Your task to perform on an android device: Open calendar and show me the second week of next month Image 0: 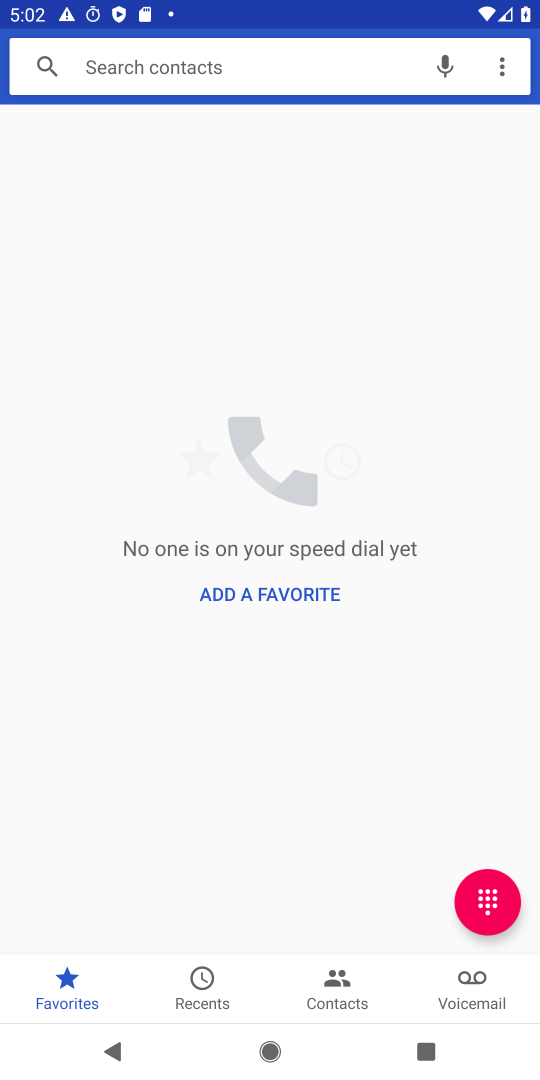
Step 0: press home button
Your task to perform on an android device: Open calendar and show me the second week of next month Image 1: 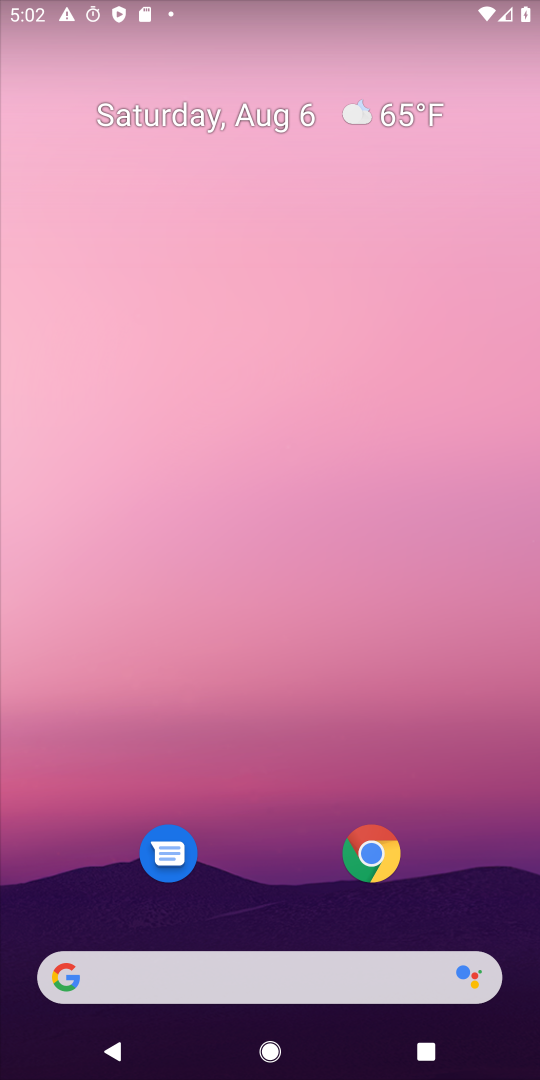
Step 1: drag from (244, 857) to (265, 55)
Your task to perform on an android device: Open calendar and show me the second week of next month Image 2: 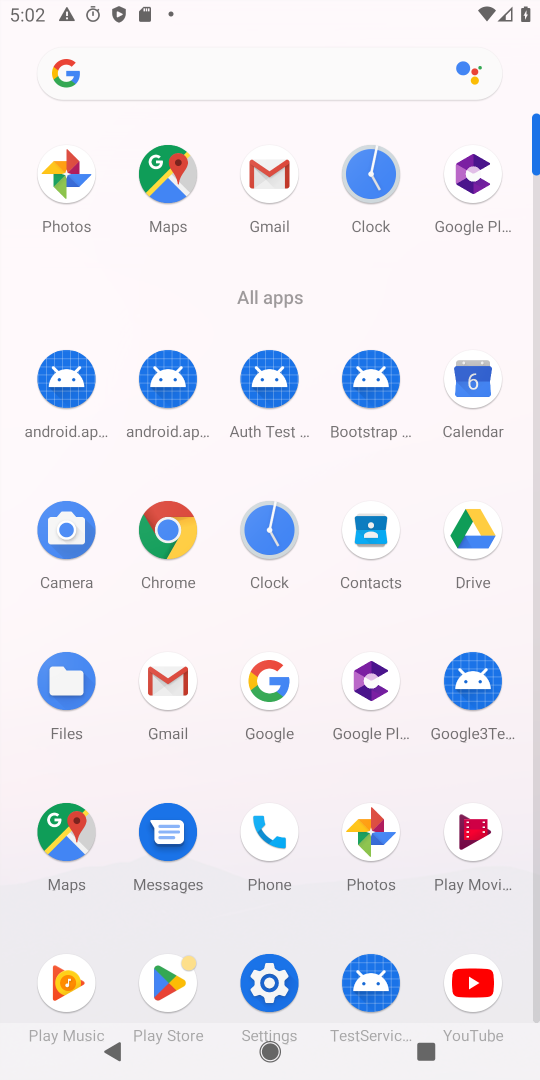
Step 2: click (464, 373)
Your task to perform on an android device: Open calendar and show me the second week of next month Image 3: 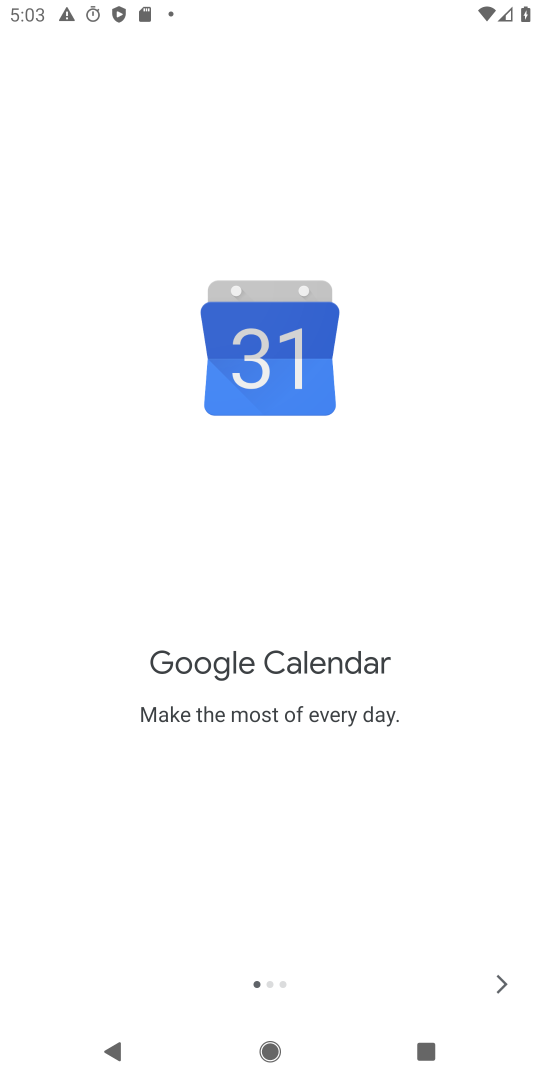
Step 3: click (491, 997)
Your task to perform on an android device: Open calendar and show me the second week of next month Image 4: 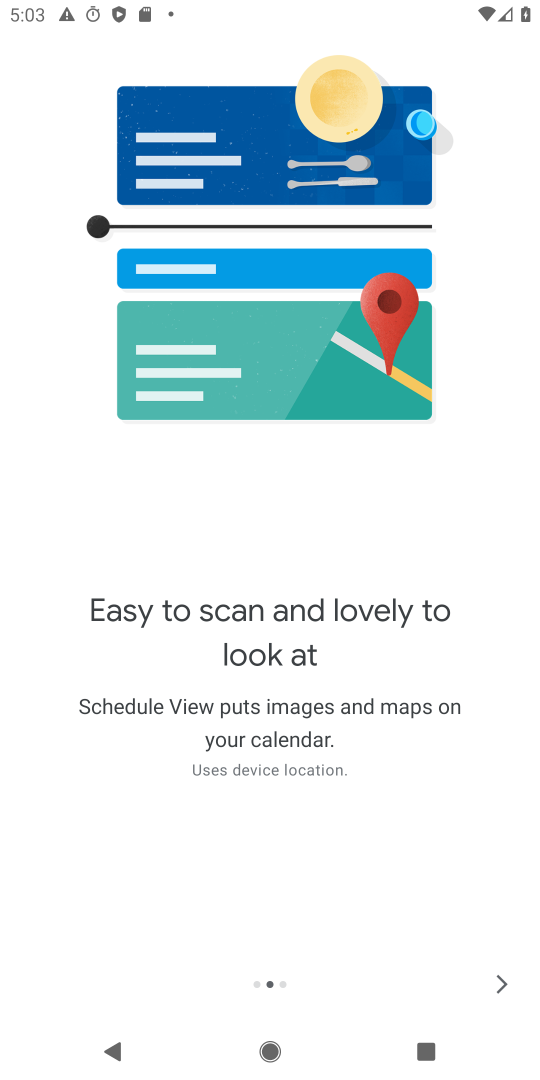
Step 4: click (484, 998)
Your task to perform on an android device: Open calendar and show me the second week of next month Image 5: 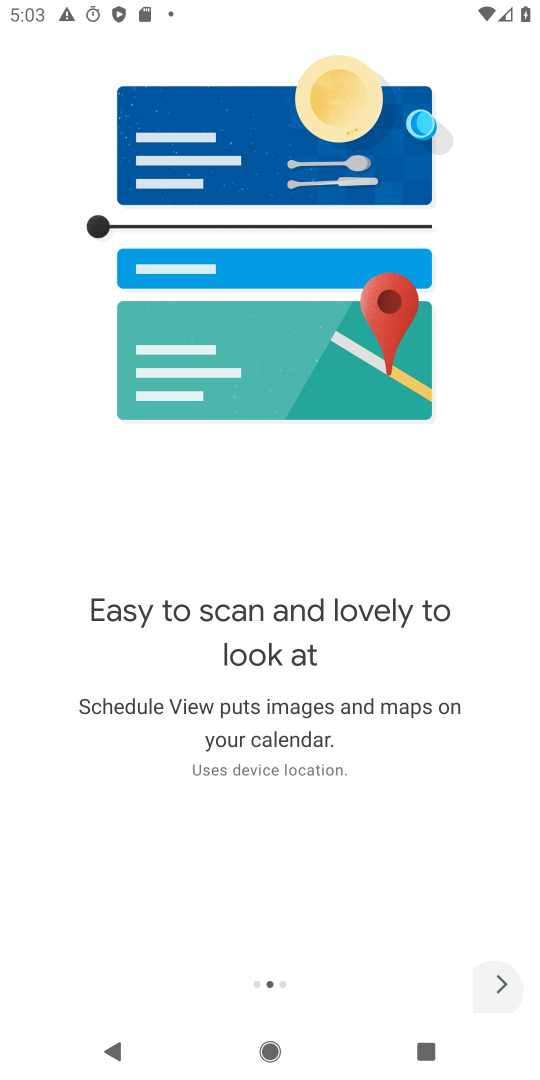
Step 5: click (484, 998)
Your task to perform on an android device: Open calendar and show me the second week of next month Image 6: 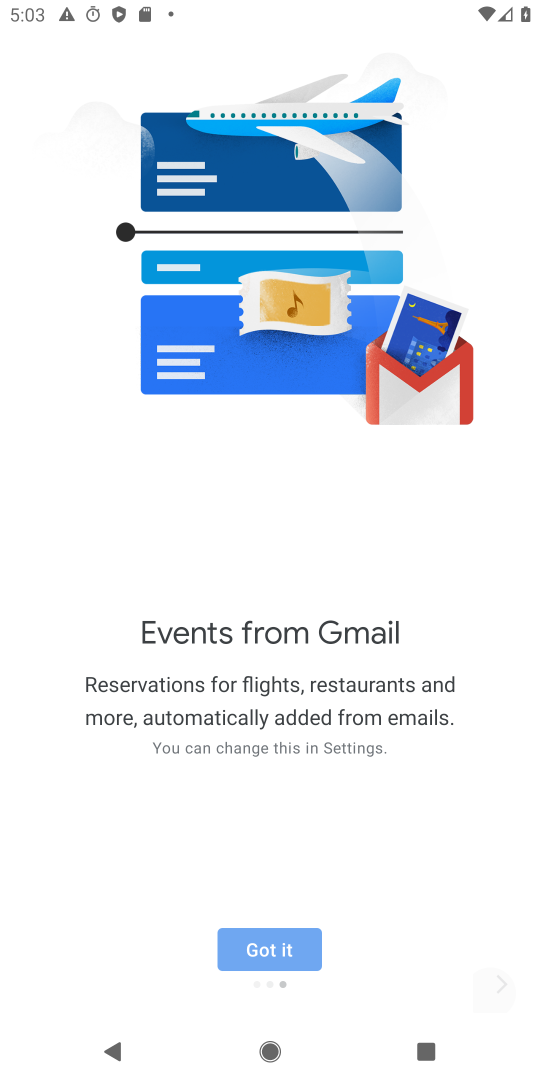
Step 6: click (484, 998)
Your task to perform on an android device: Open calendar and show me the second week of next month Image 7: 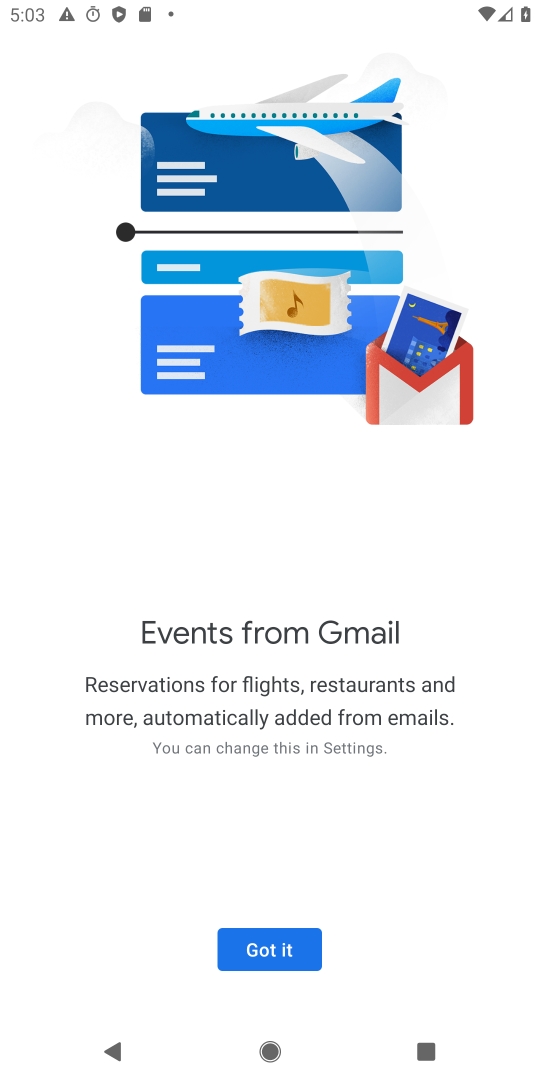
Step 7: click (332, 952)
Your task to perform on an android device: Open calendar and show me the second week of next month Image 8: 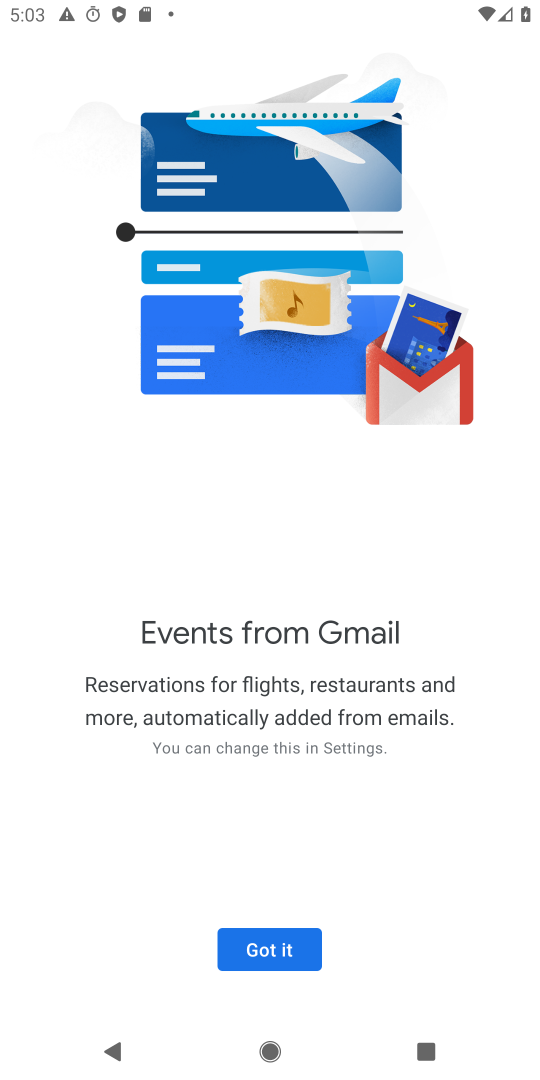
Step 8: click (309, 943)
Your task to perform on an android device: Open calendar and show me the second week of next month Image 9: 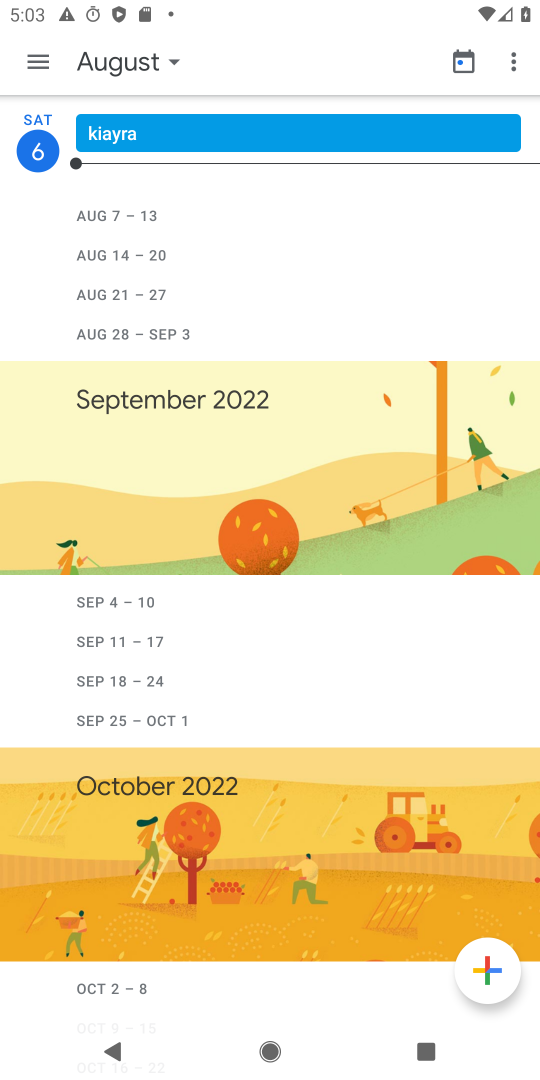
Step 9: click (100, 67)
Your task to perform on an android device: Open calendar and show me the second week of next month Image 10: 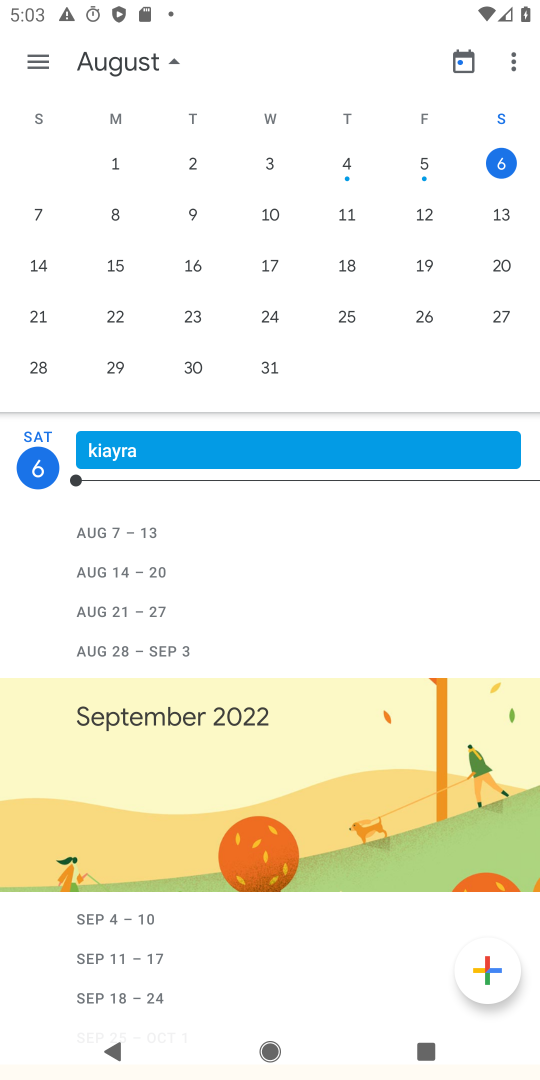
Step 10: drag from (499, 263) to (143, 258)
Your task to perform on an android device: Open calendar and show me the second week of next month Image 11: 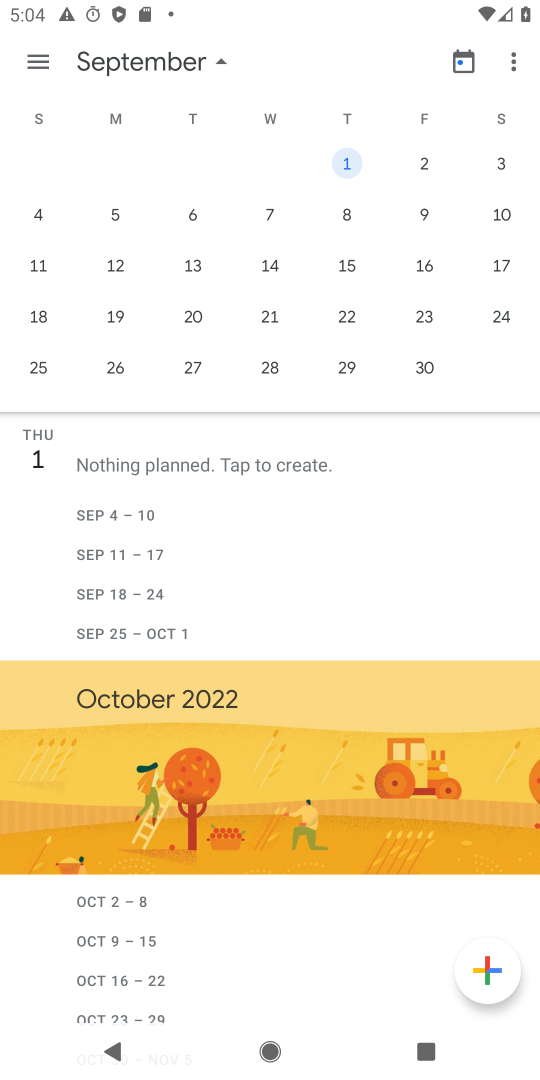
Step 11: click (200, 267)
Your task to perform on an android device: Open calendar and show me the second week of next month Image 12: 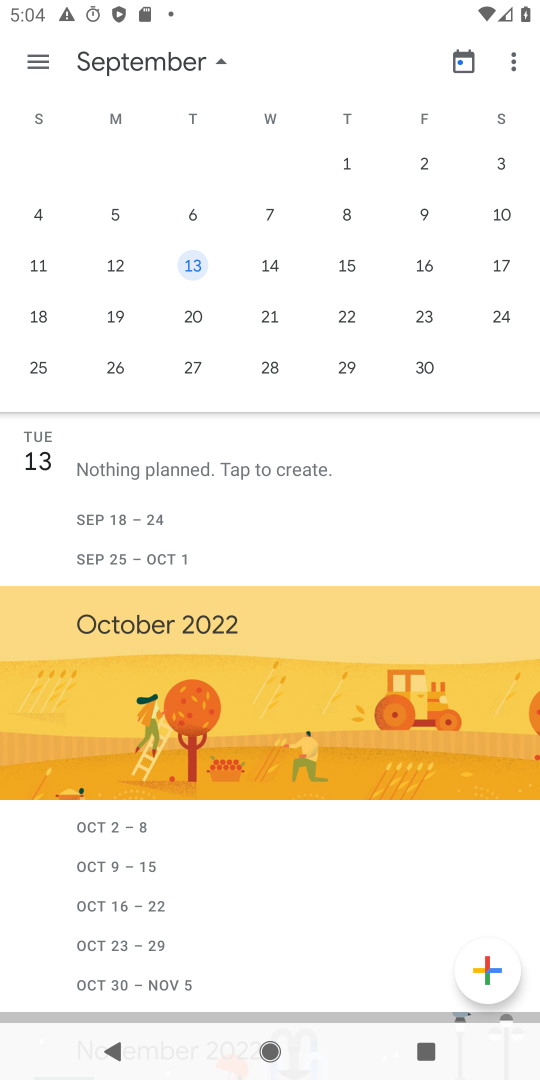
Step 12: click (37, 55)
Your task to perform on an android device: Open calendar and show me the second week of next month Image 13: 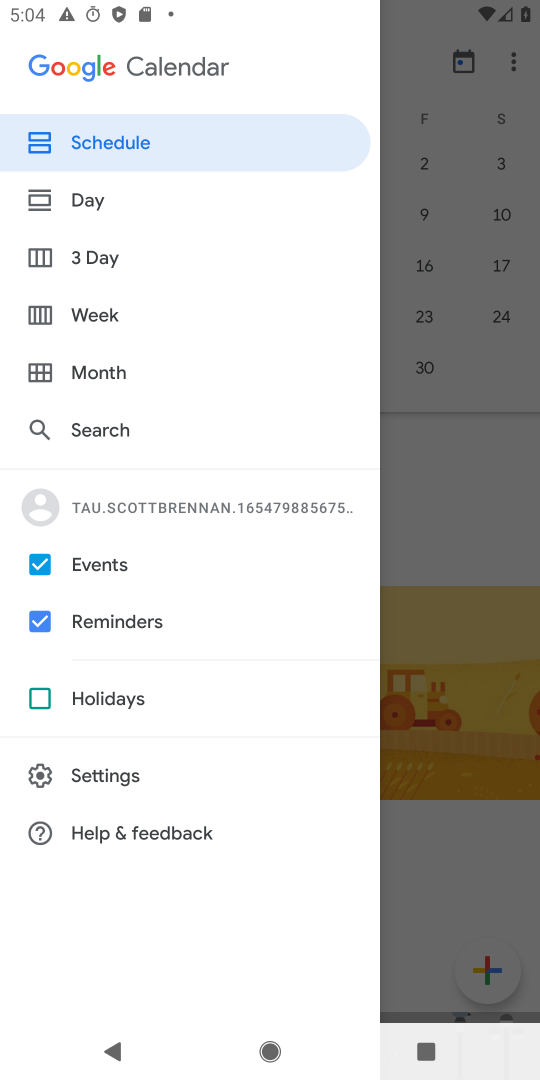
Step 13: click (106, 308)
Your task to perform on an android device: Open calendar and show me the second week of next month Image 14: 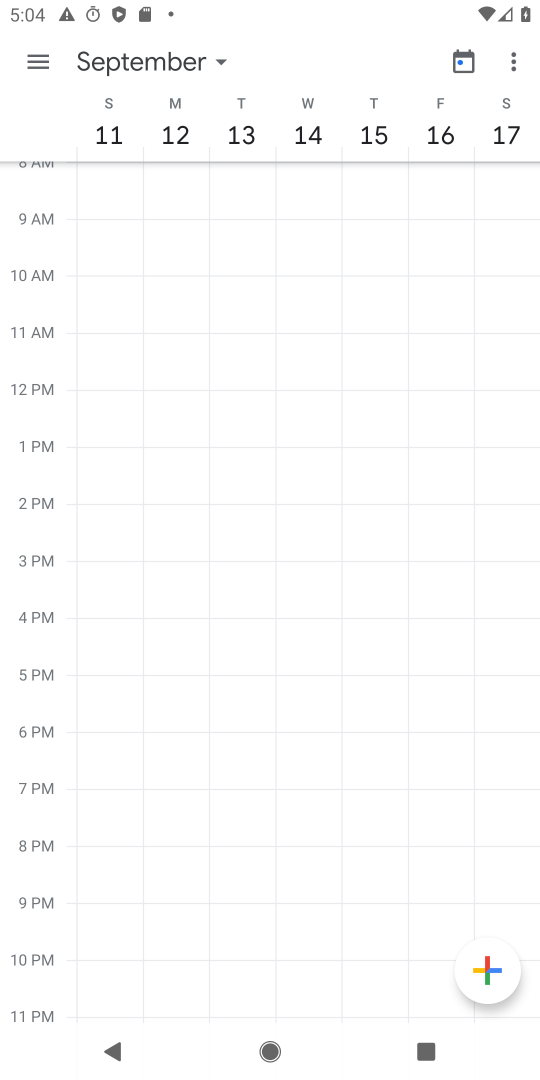
Step 14: task complete